Your task to perform on an android device: See recent photos Image 0: 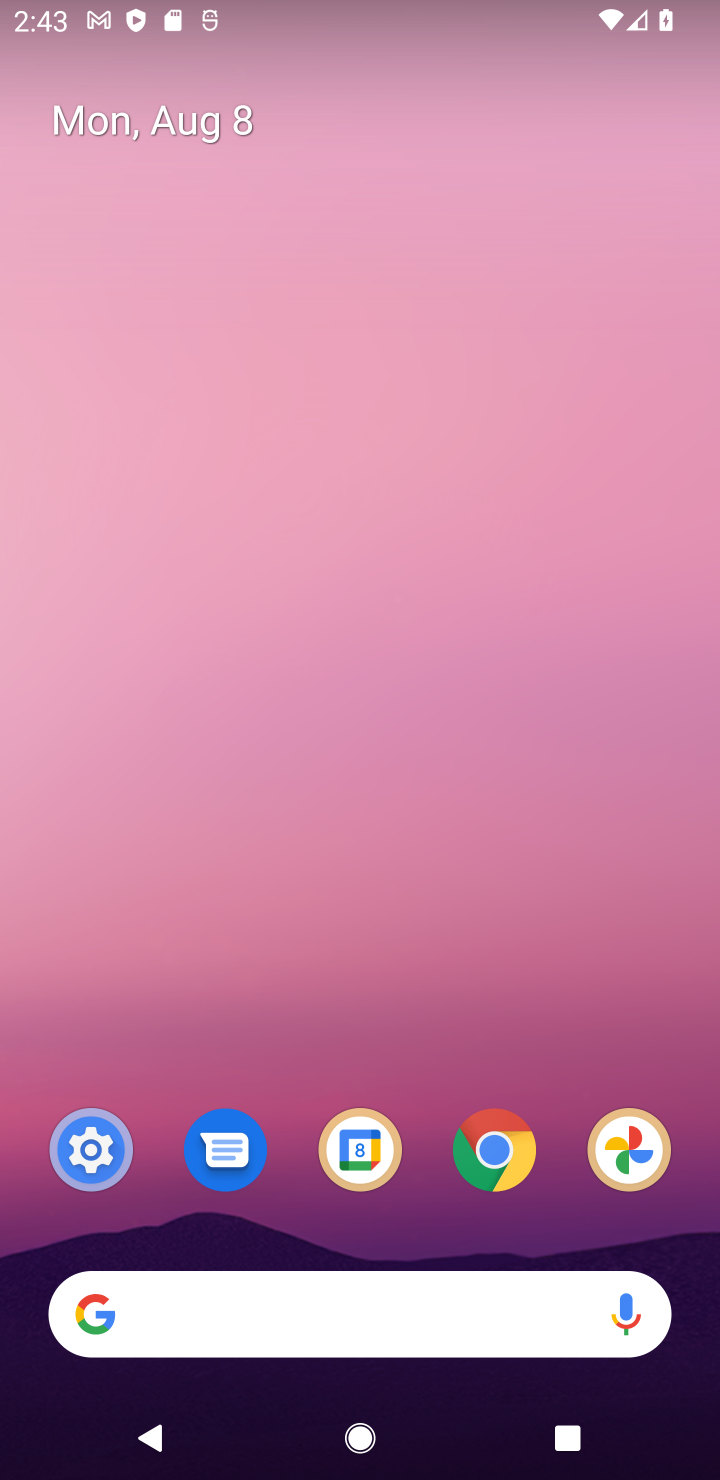
Step 0: click (656, 1153)
Your task to perform on an android device: See recent photos Image 1: 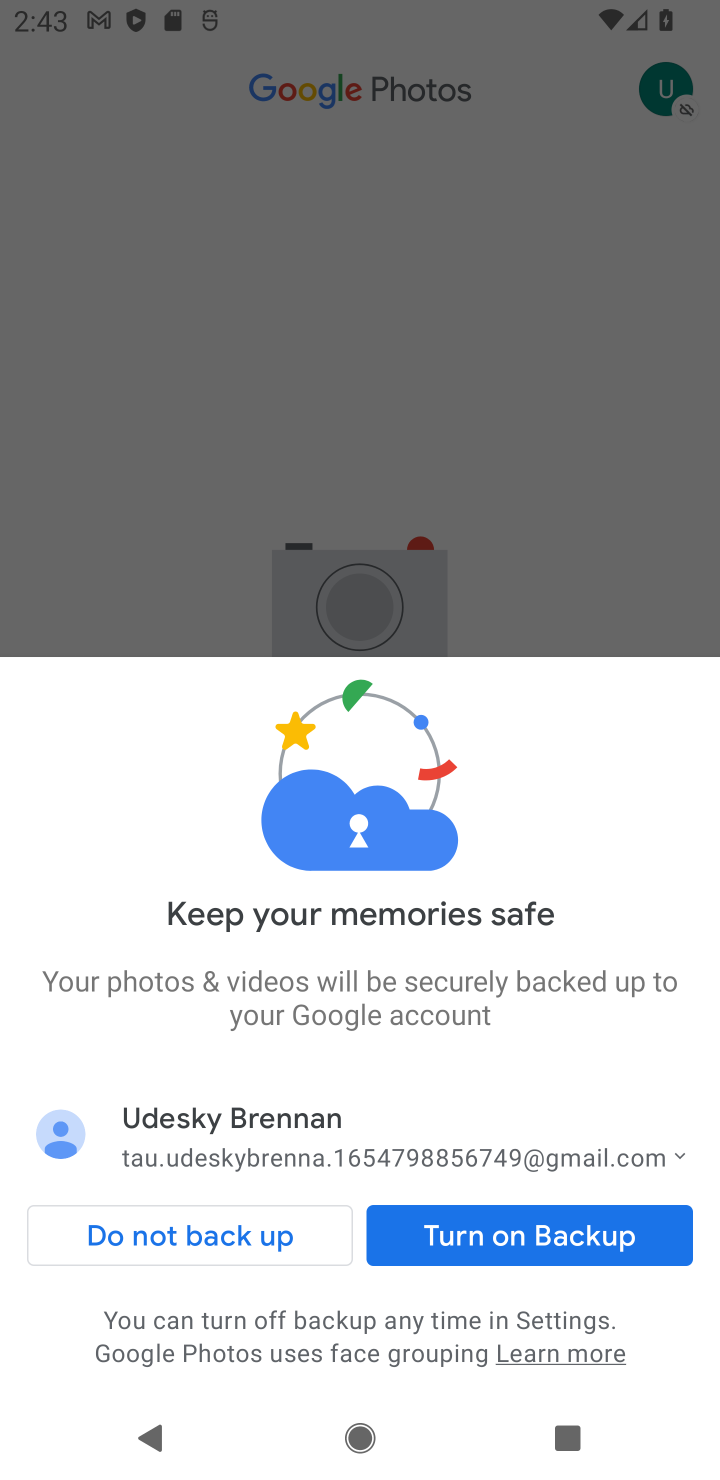
Step 1: task complete